Your task to perform on an android device: turn pop-ups on in chrome Image 0: 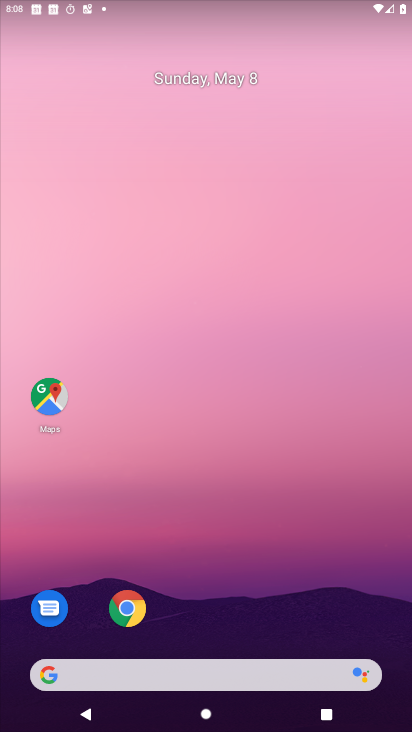
Step 0: click (255, 215)
Your task to perform on an android device: turn pop-ups on in chrome Image 1: 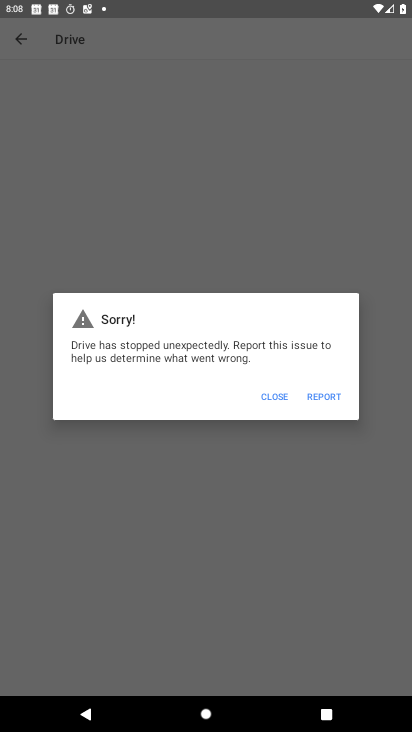
Step 1: drag from (256, 544) to (255, 56)
Your task to perform on an android device: turn pop-ups on in chrome Image 2: 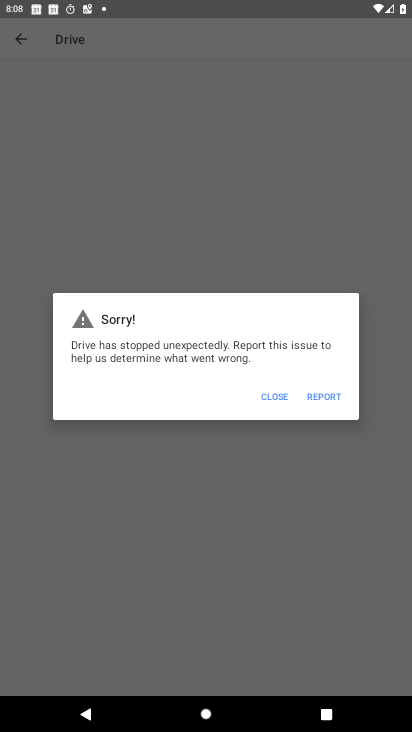
Step 2: press home button
Your task to perform on an android device: turn pop-ups on in chrome Image 3: 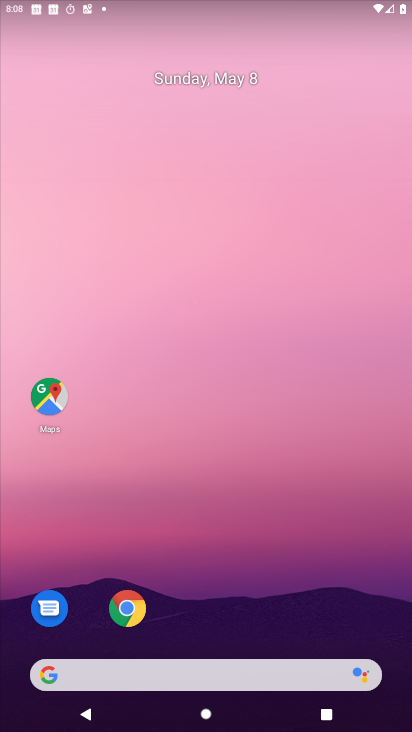
Step 3: click (138, 605)
Your task to perform on an android device: turn pop-ups on in chrome Image 4: 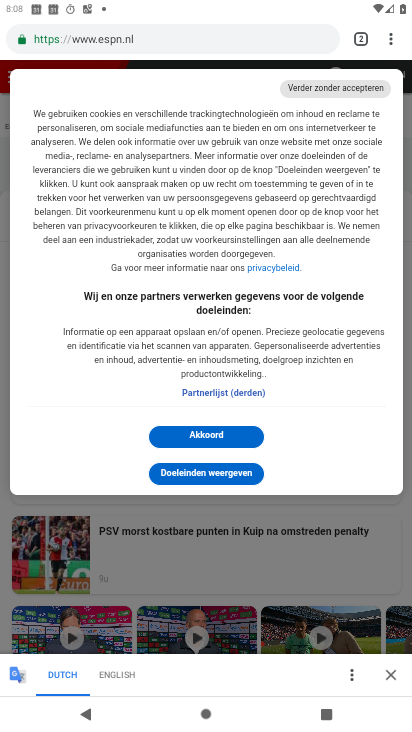
Step 4: drag from (387, 41) to (251, 476)
Your task to perform on an android device: turn pop-ups on in chrome Image 5: 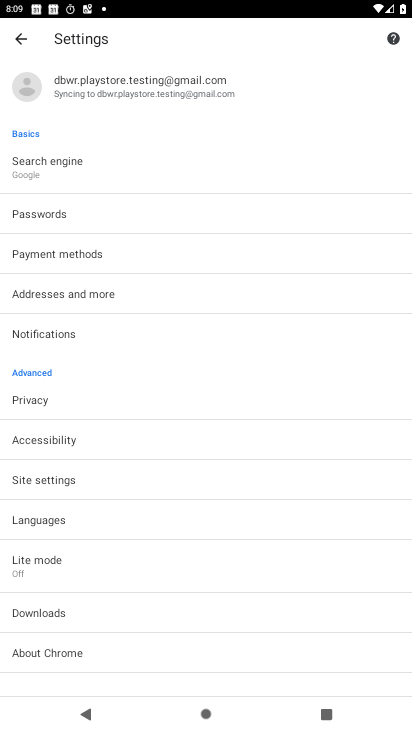
Step 5: click (44, 488)
Your task to perform on an android device: turn pop-ups on in chrome Image 6: 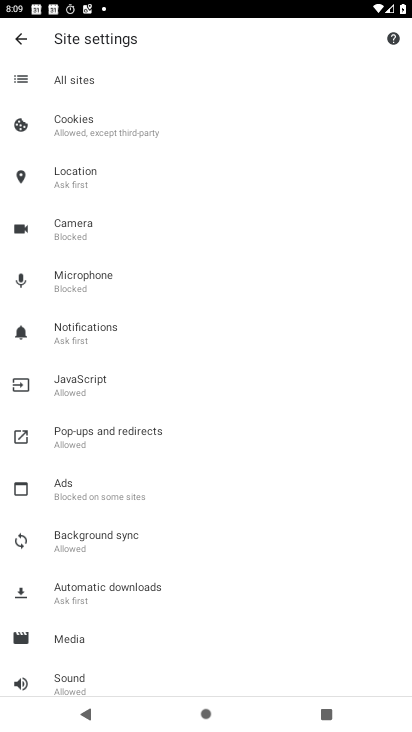
Step 6: click (110, 458)
Your task to perform on an android device: turn pop-ups on in chrome Image 7: 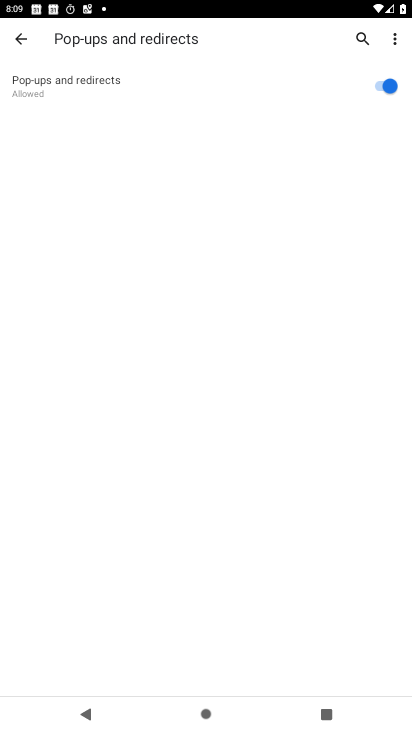
Step 7: task complete